Your task to perform on an android device: Go to Maps Image 0: 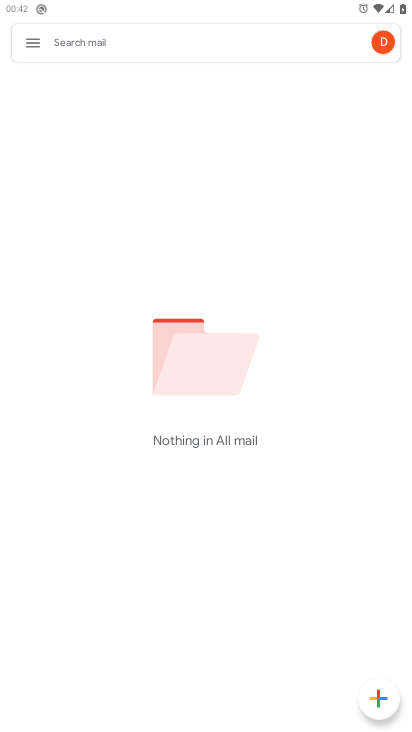
Step 0: press home button
Your task to perform on an android device: Go to Maps Image 1: 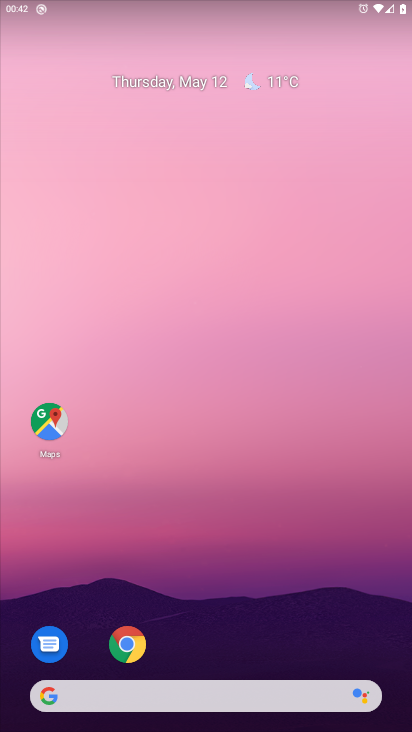
Step 1: click (47, 416)
Your task to perform on an android device: Go to Maps Image 2: 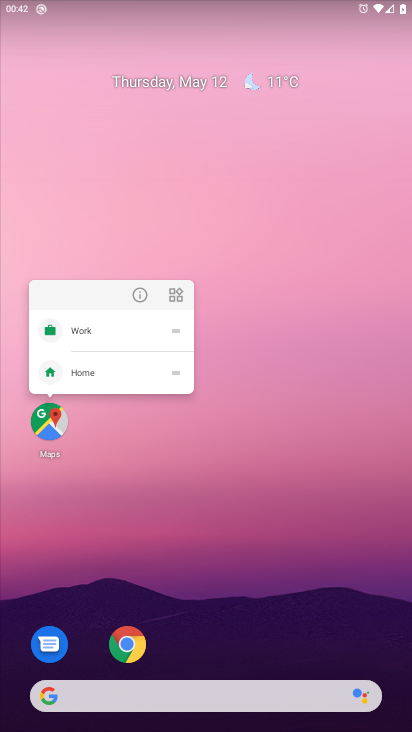
Step 2: click (49, 421)
Your task to perform on an android device: Go to Maps Image 3: 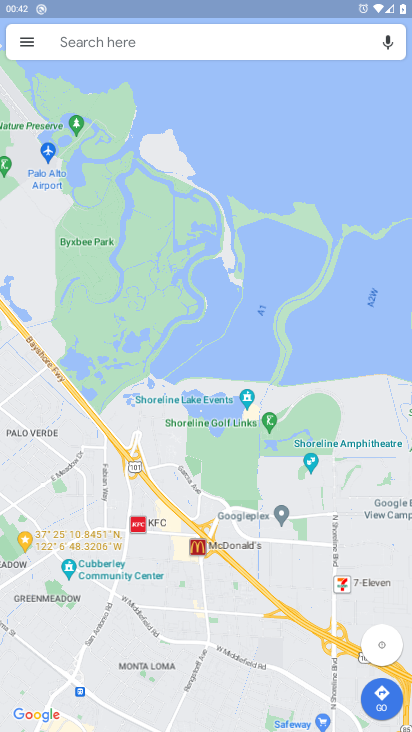
Step 3: click (380, 696)
Your task to perform on an android device: Go to Maps Image 4: 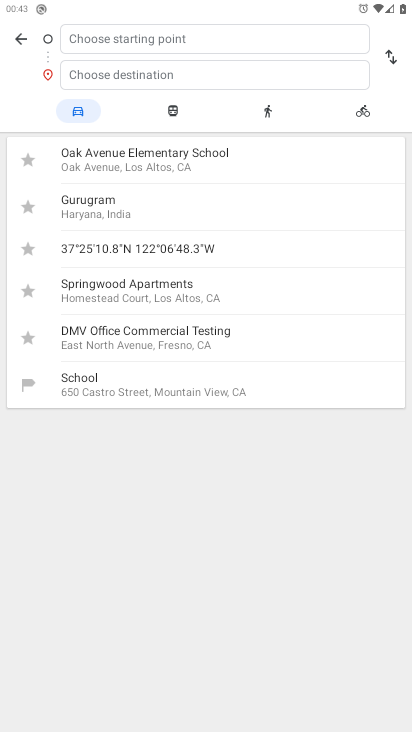
Step 4: click (23, 41)
Your task to perform on an android device: Go to Maps Image 5: 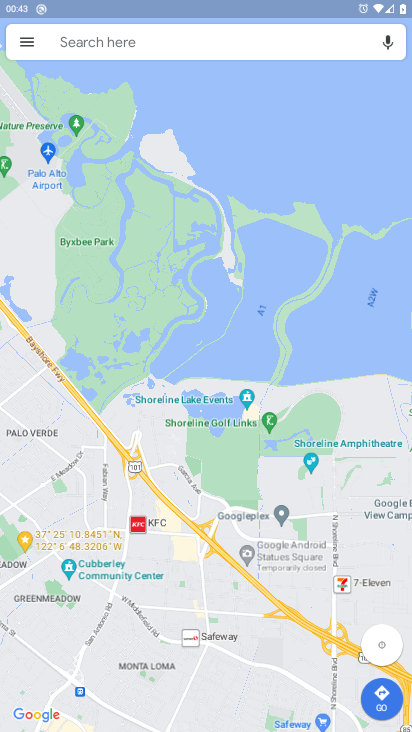
Step 5: task complete